Your task to perform on an android device: Open calendar and show me the fourth week of next month Image 0: 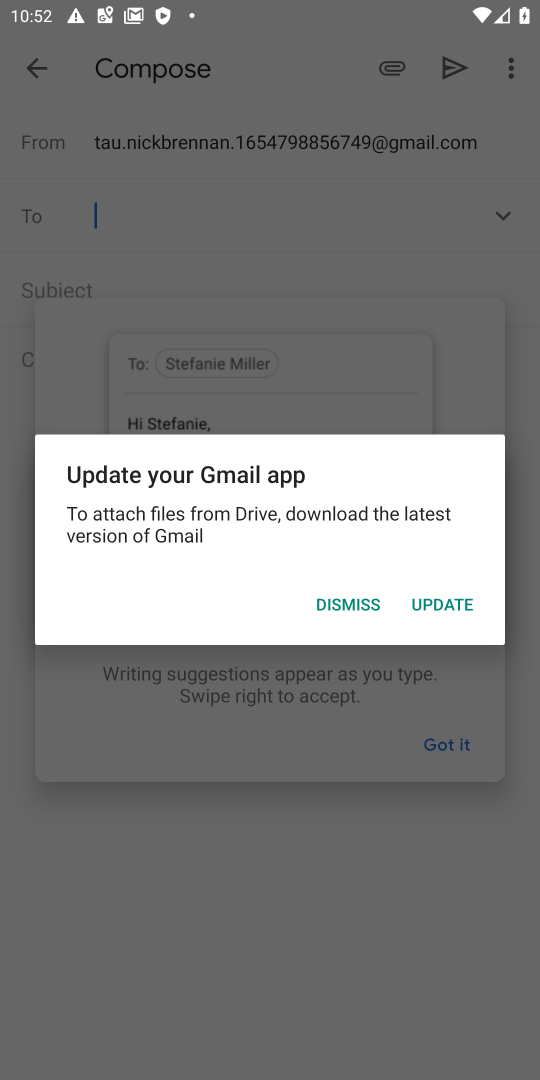
Step 0: press home button
Your task to perform on an android device: Open calendar and show me the fourth week of next month Image 1: 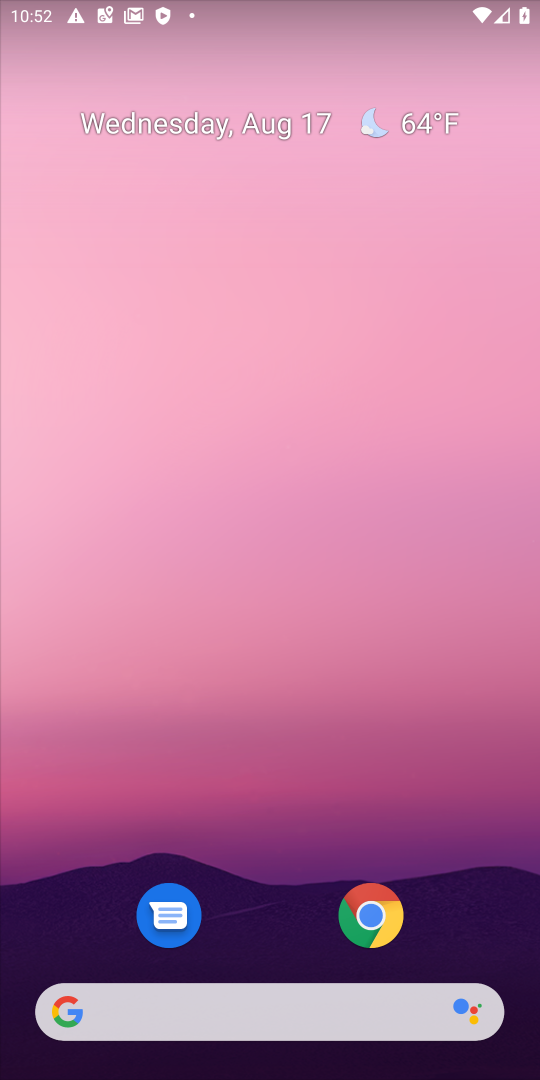
Step 1: drag from (251, 925) to (228, 68)
Your task to perform on an android device: Open calendar and show me the fourth week of next month Image 2: 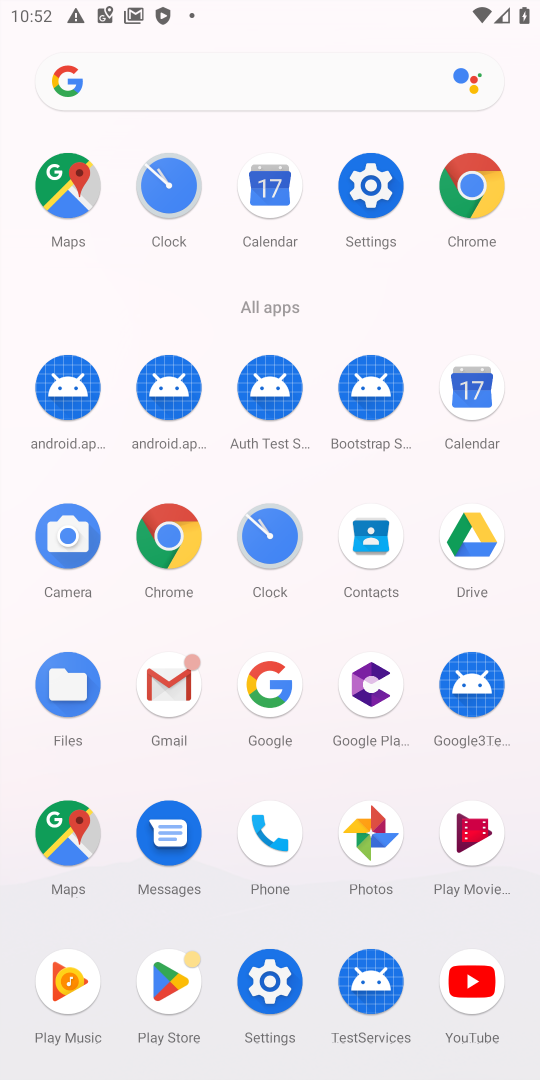
Step 2: click (467, 395)
Your task to perform on an android device: Open calendar and show me the fourth week of next month Image 3: 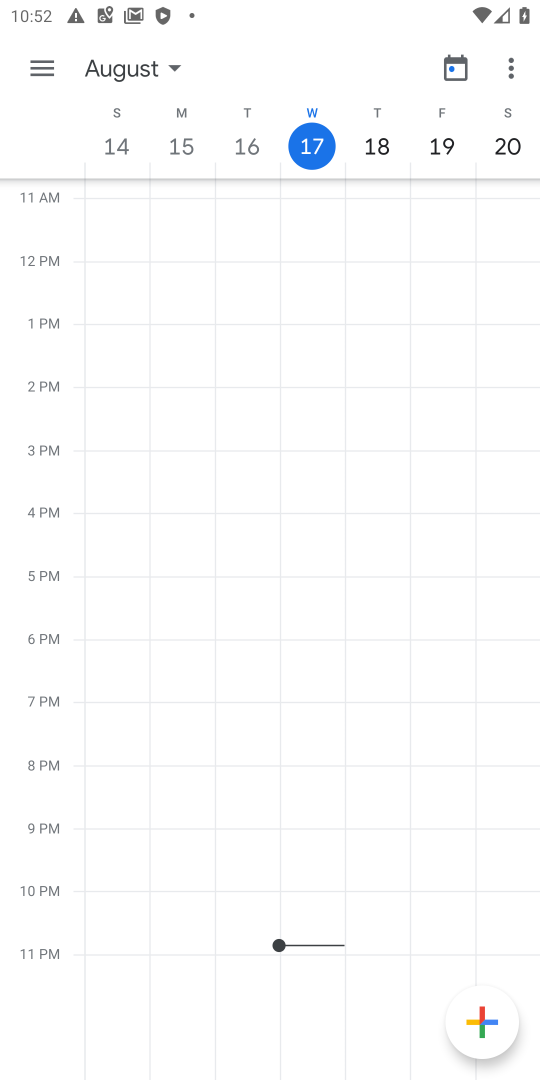
Step 3: click (171, 71)
Your task to perform on an android device: Open calendar and show me the fourth week of next month Image 4: 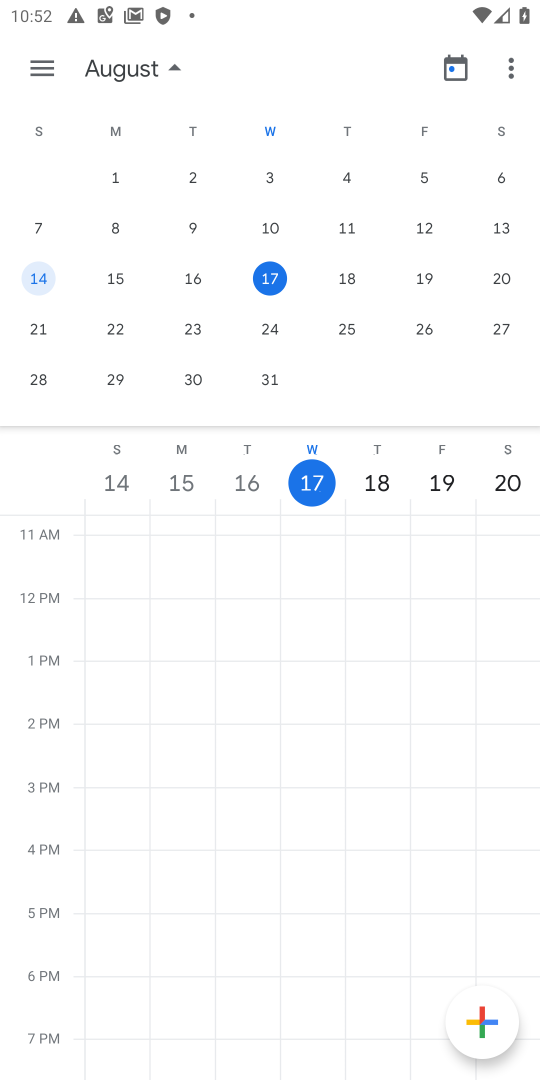
Step 4: drag from (472, 182) to (76, 203)
Your task to perform on an android device: Open calendar and show me the fourth week of next month Image 5: 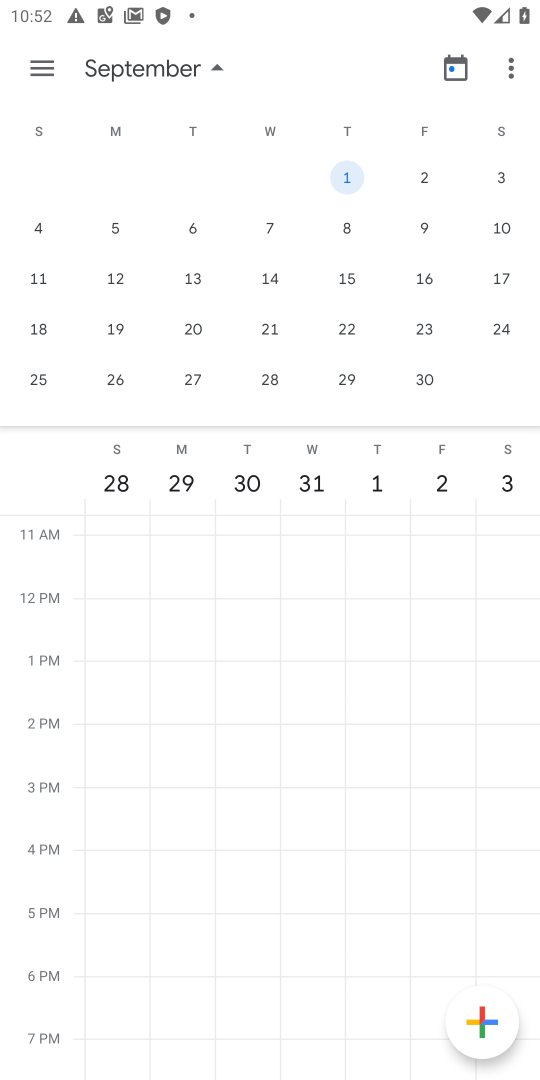
Step 5: click (266, 329)
Your task to perform on an android device: Open calendar and show me the fourth week of next month Image 6: 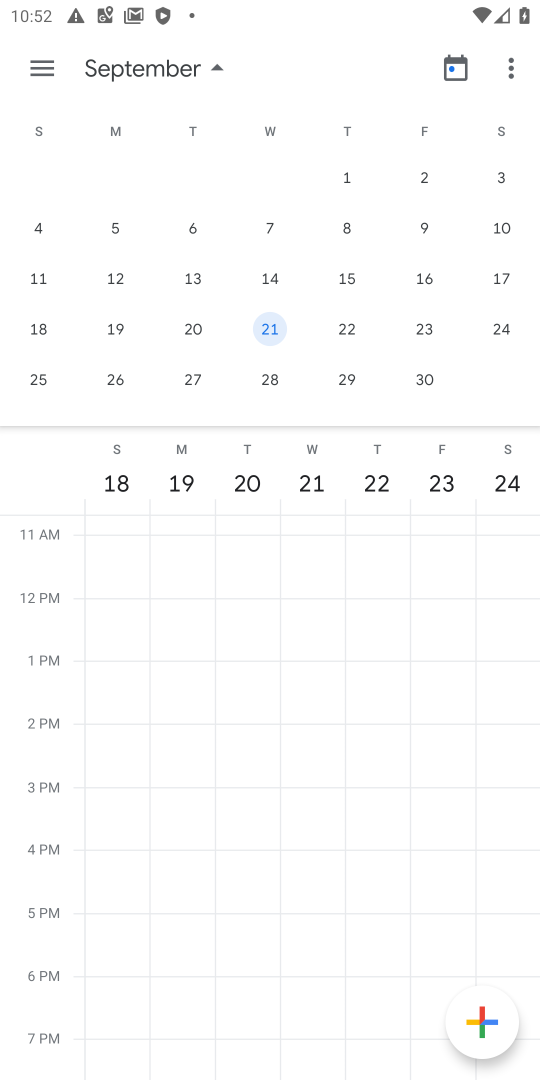
Step 6: task complete